Your task to perform on an android device: Search for seafood restaurants on Google Maps Image 0: 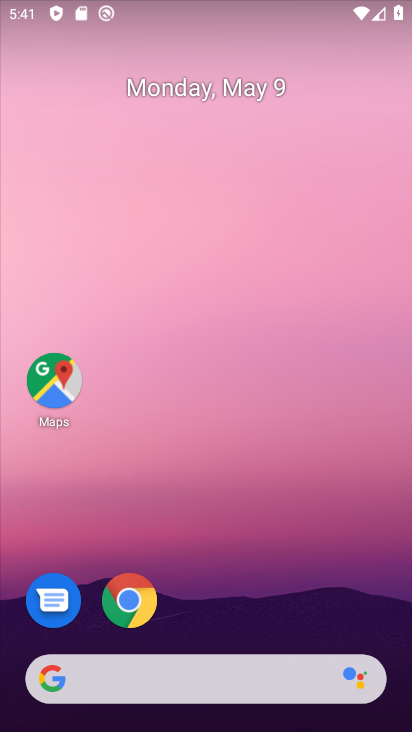
Step 0: click (74, 394)
Your task to perform on an android device: Search for seafood restaurants on Google Maps Image 1: 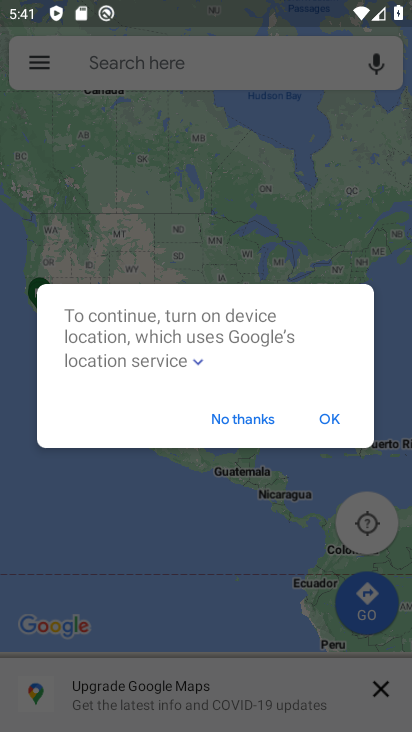
Step 1: click (172, 60)
Your task to perform on an android device: Search for seafood restaurants on Google Maps Image 2: 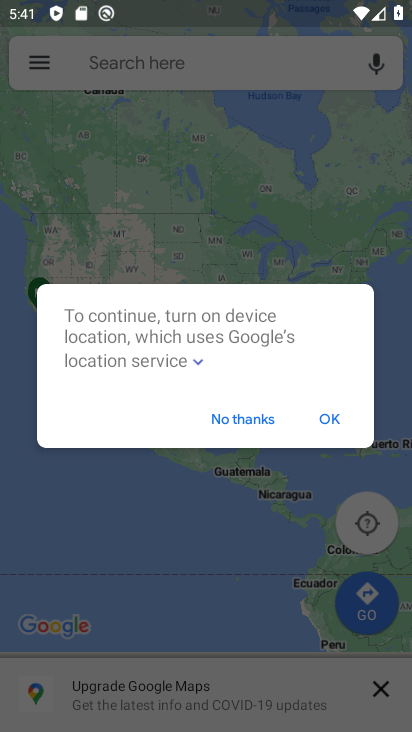
Step 2: click (256, 416)
Your task to perform on an android device: Search for seafood restaurants on Google Maps Image 3: 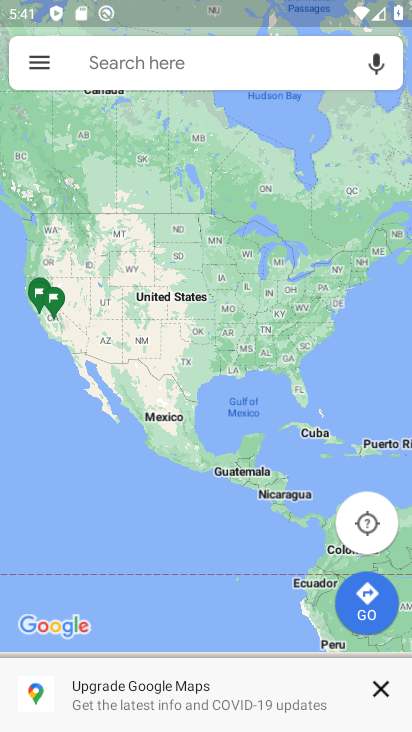
Step 3: click (199, 68)
Your task to perform on an android device: Search for seafood restaurants on Google Maps Image 4: 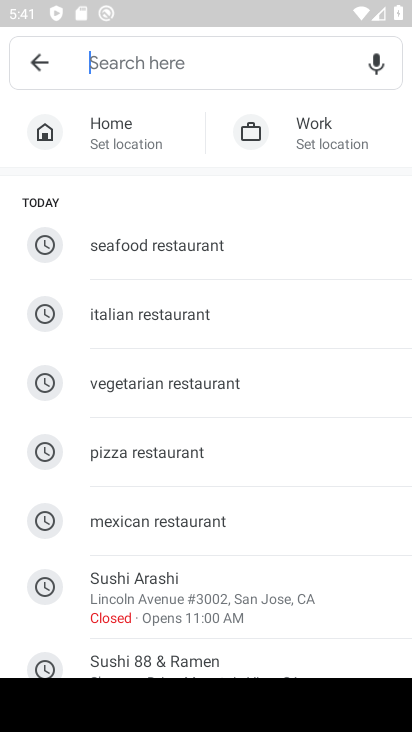
Step 4: type "seafood restaurants"
Your task to perform on an android device: Search for seafood restaurants on Google Maps Image 5: 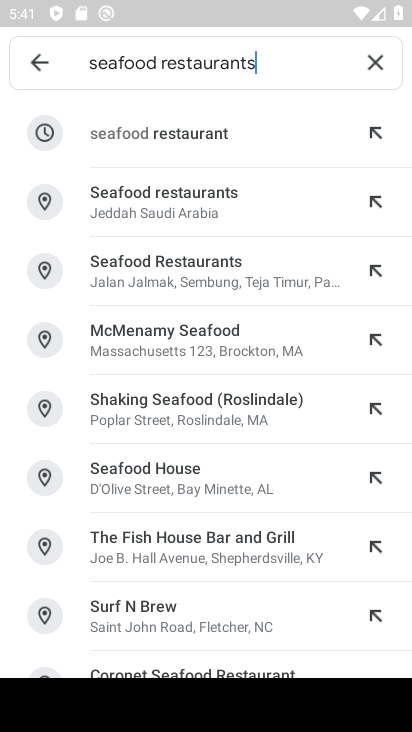
Step 5: click (210, 142)
Your task to perform on an android device: Search for seafood restaurants on Google Maps Image 6: 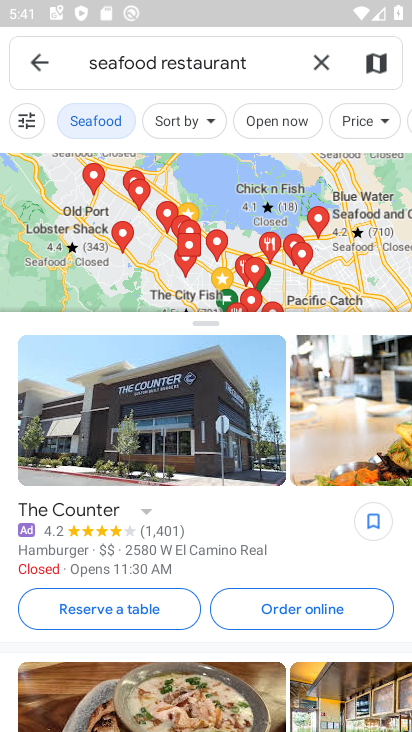
Step 6: task complete